Your task to perform on an android device: toggle notification dots Image 0: 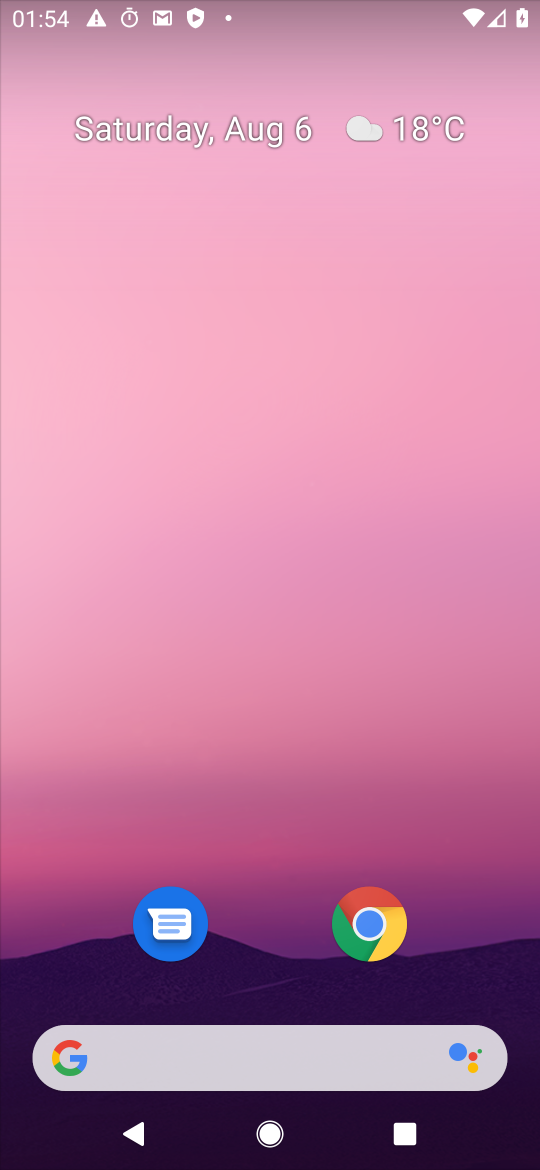
Step 0: drag from (391, 1071) to (400, 206)
Your task to perform on an android device: toggle notification dots Image 1: 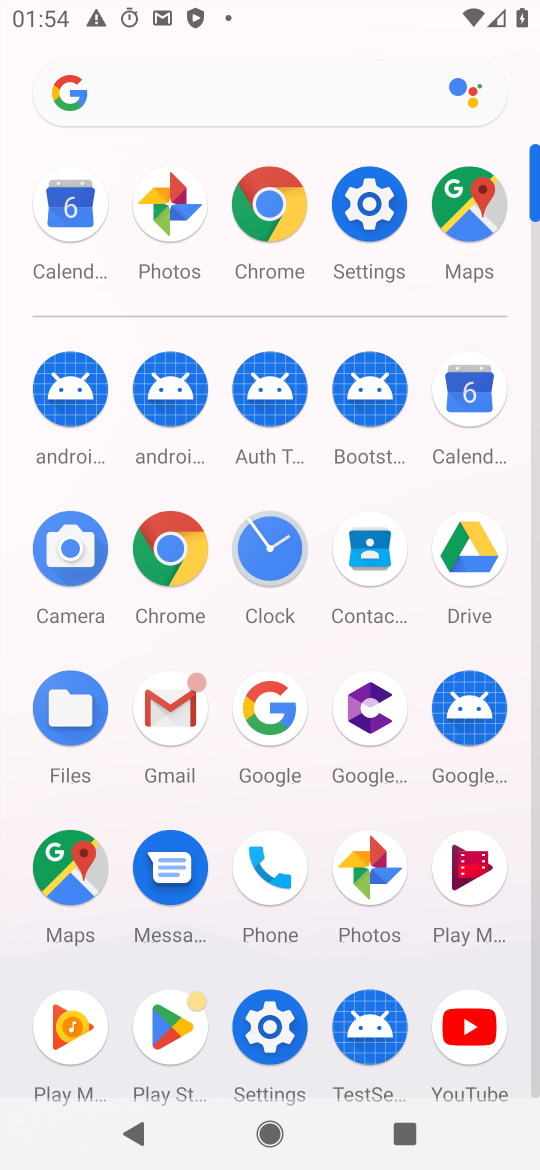
Step 1: click (364, 215)
Your task to perform on an android device: toggle notification dots Image 2: 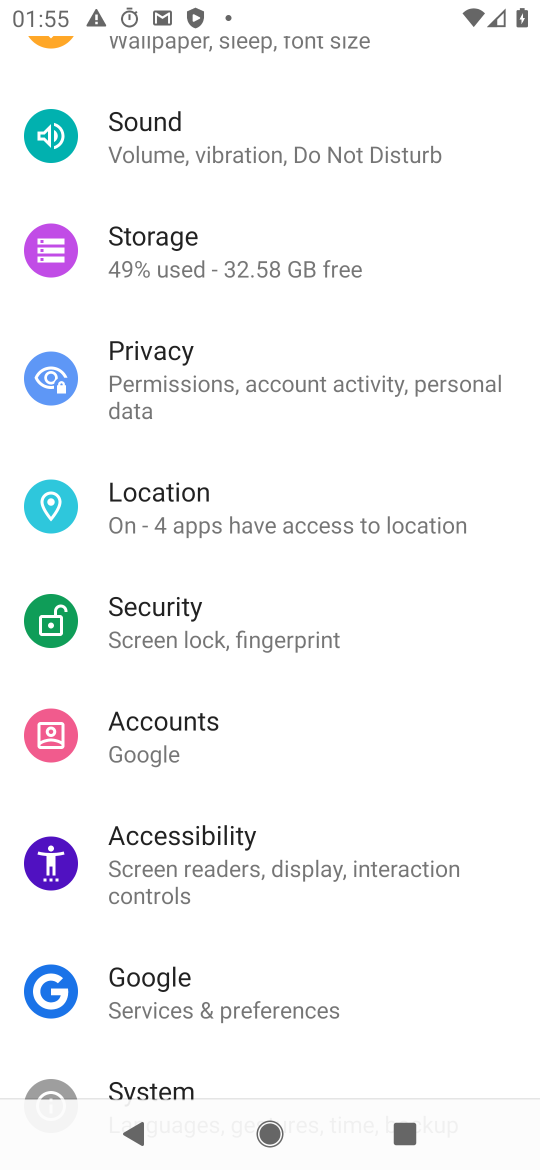
Step 2: drag from (353, 213) to (437, 827)
Your task to perform on an android device: toggle notification dots Image 3: 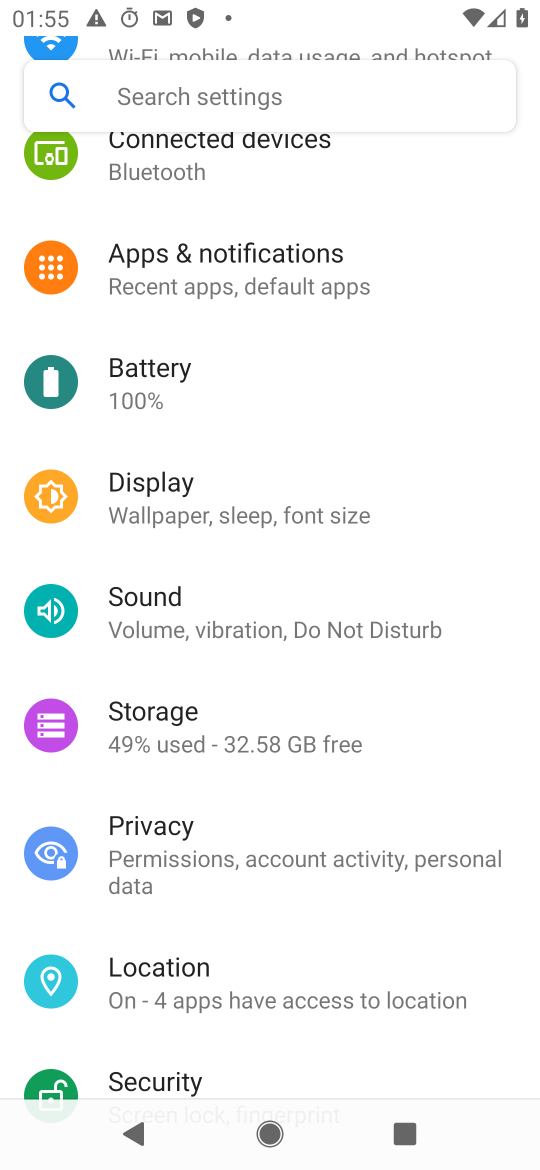
Step 3: click (437, 827)
Your task to perform on an android device: toggle notification dots Image 4: 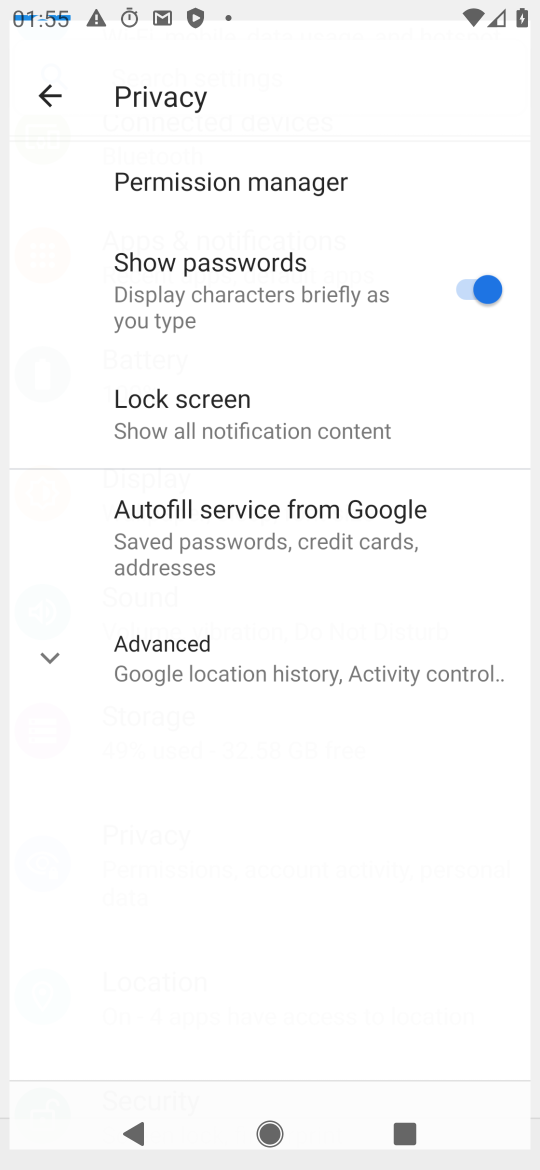
Step 4: click (302, 284)
Your task to perform on an android device: toggle notification dots Image 5: 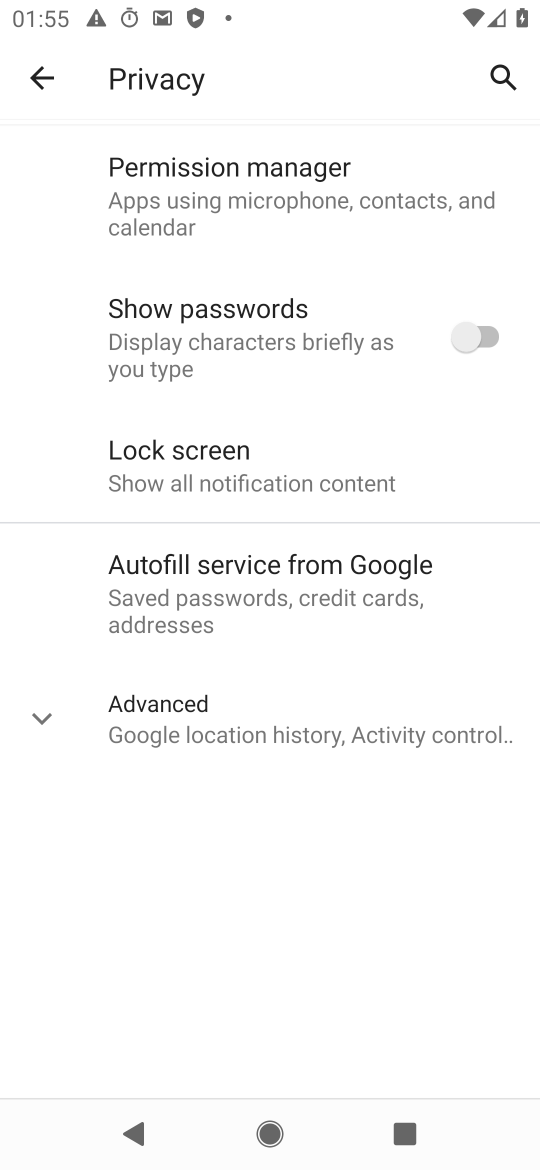
Step 5: press back button
Your task to perform on an android device: toggle notification dots Image 6: 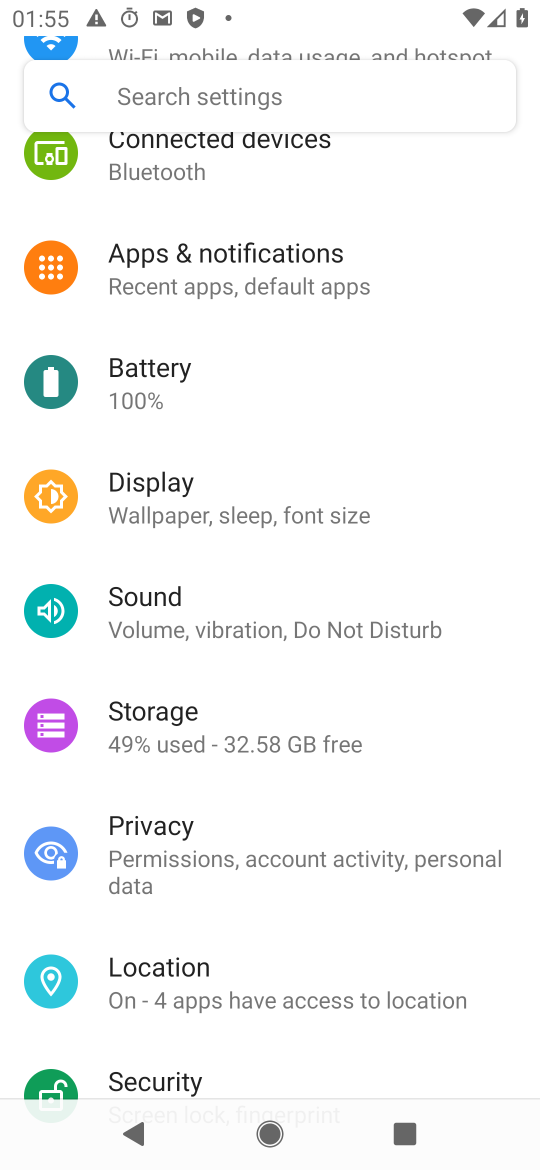
Step 6: click (318, 274)
Your task to perform on an android device: toggle notification dots Image 7: 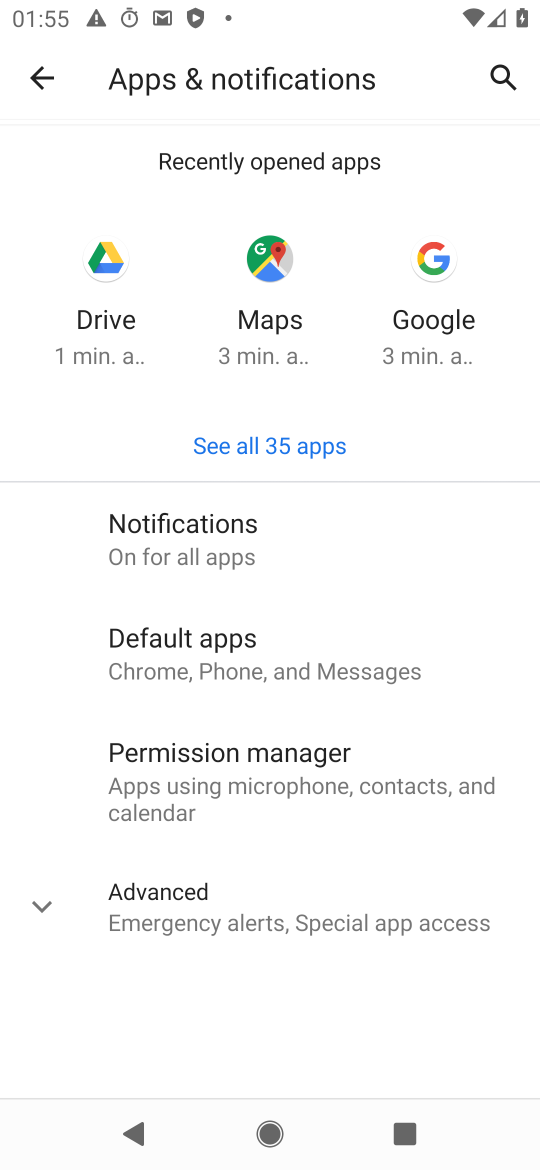
Step 7: click (247, 889)
Your task to perform on an android device: toggle notification dots Image 8: 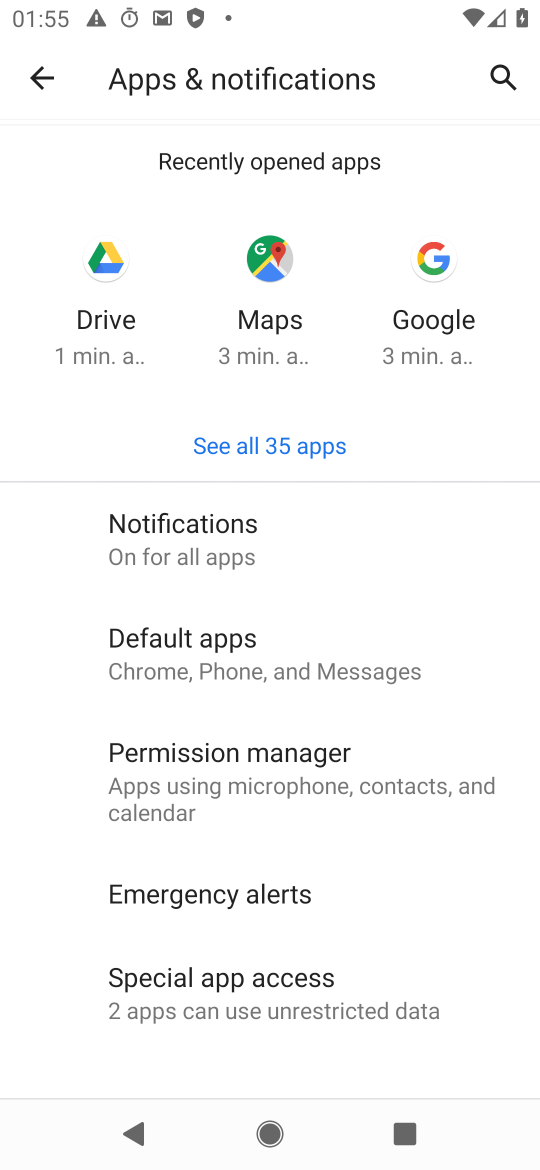
Step 8: click (222, 540)
Your task to perform on an android device: toggle notification dots Image 9: 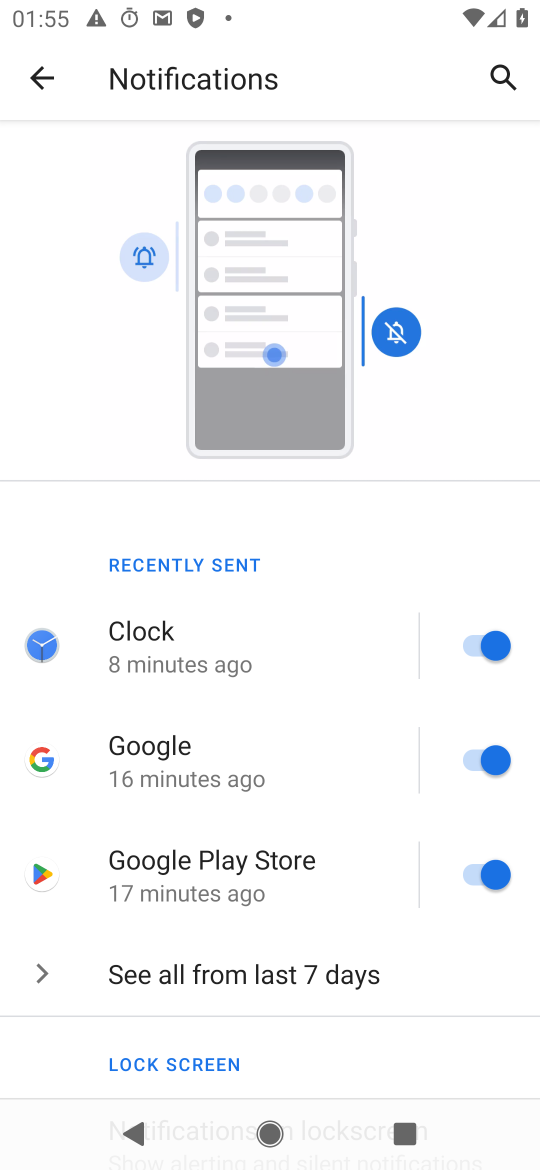
Step 9: drag from (318, 1027) to (352, 478)
Your task to perform on an android device: toggle notification dots Image 10: 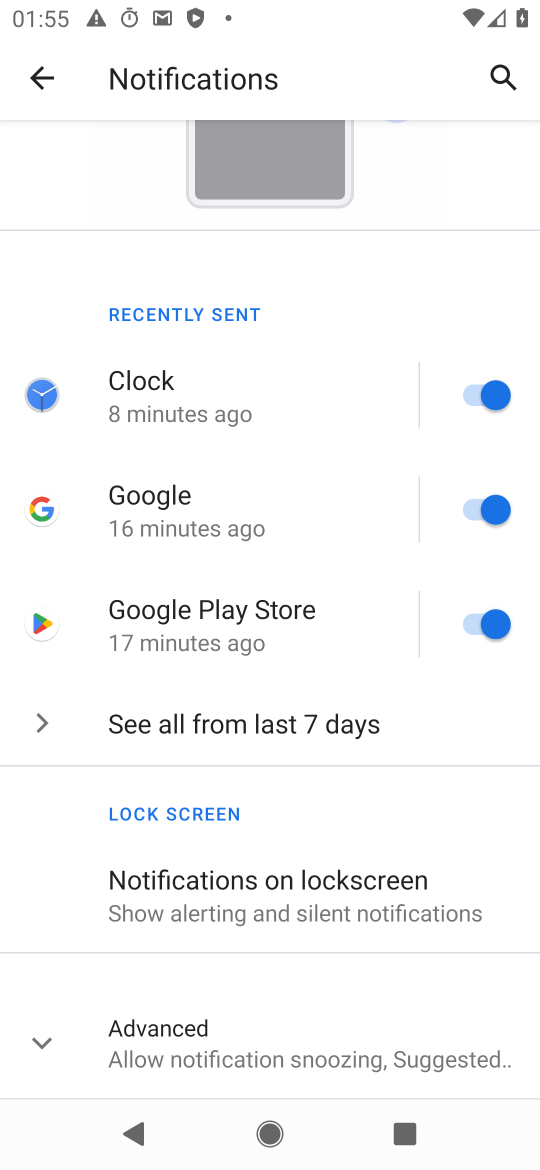
Step 10: click (210, 1063)
Your task to perform on an android device: toggle notification dots Image 11: 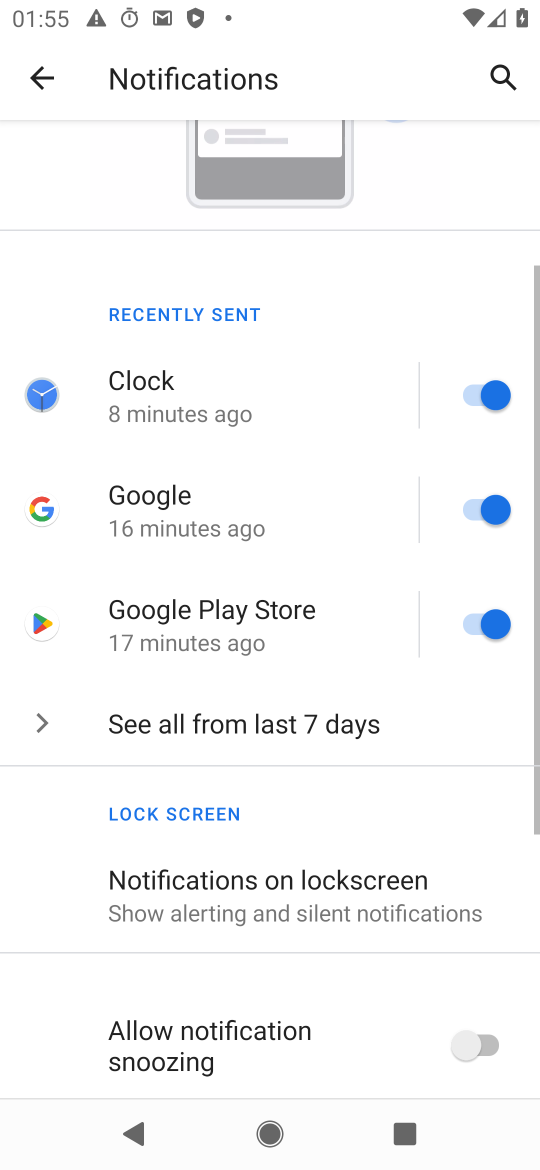
Step 11: drag from (357, 992) to (431, 395)
Your task to perform on an android device: toggle notification dots Image 12: 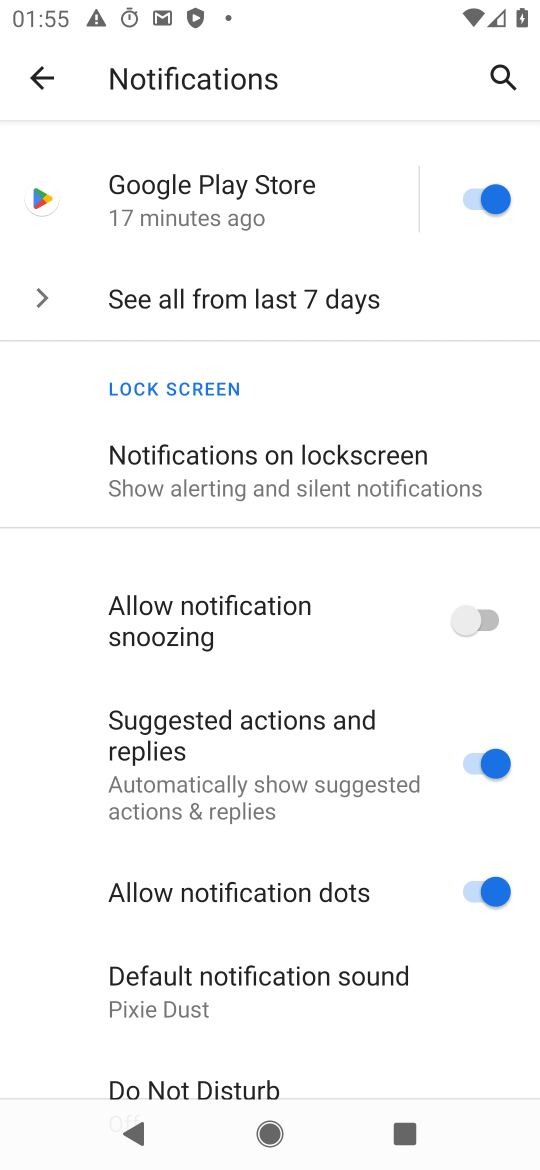
Step 12: click (484, 884)
Your task to perform on an android device: toggle notification dots Image 13: 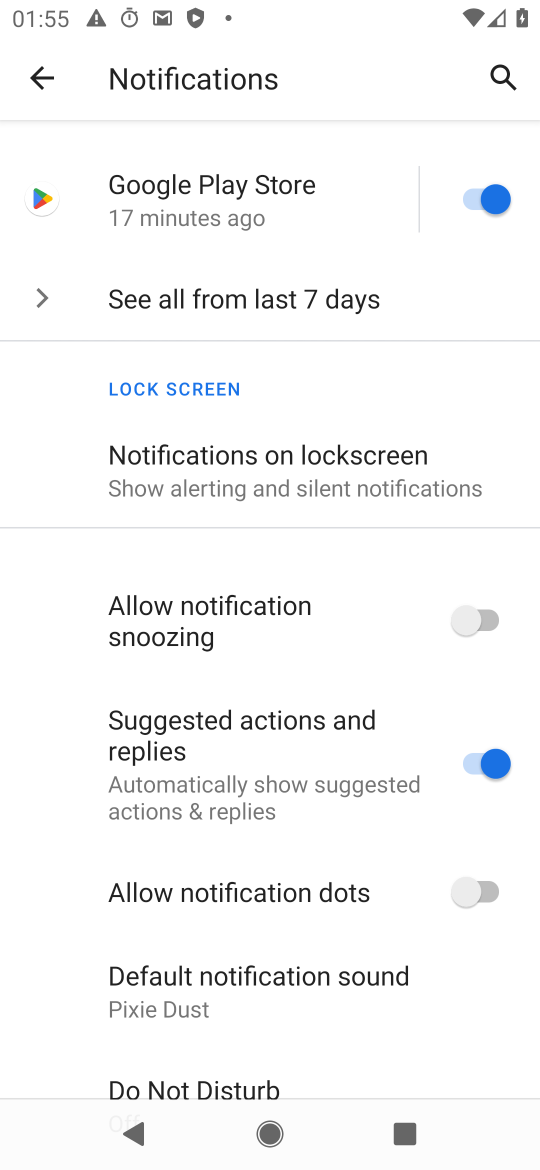
Step 13: task complete